Your task to perform on an android device: turn on airplane mode Image 0: 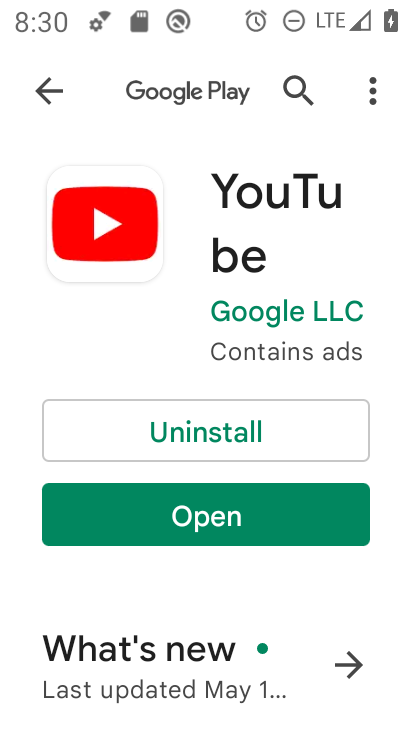
Step 0: press home button
Your task to perform on an android device: turn on airplane mode Image 1: 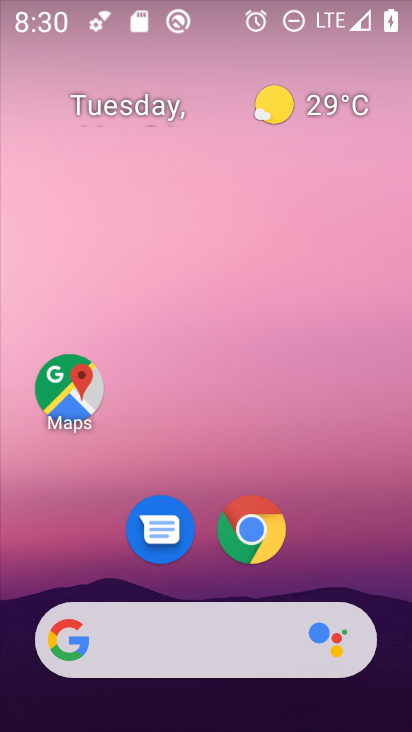
Step 1: drag from (311, 1) to (302, 204)
Your task to perform on an android device: turn on airplane mode Image 2: 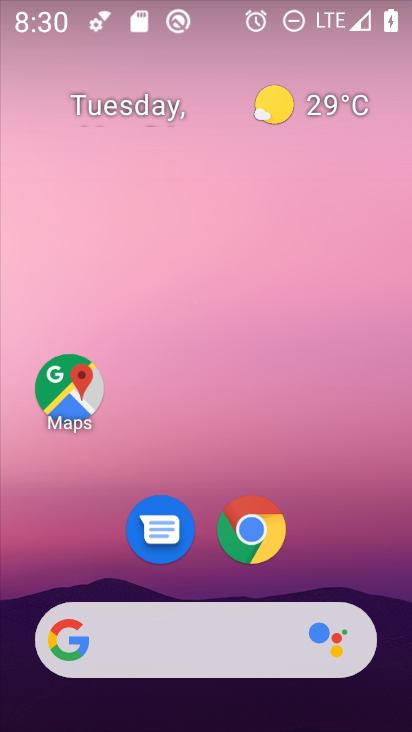
Step 2: drag from (232, 8) to (253, 517)
Your task to perform on an android device: turn on airplane mode Image 3: 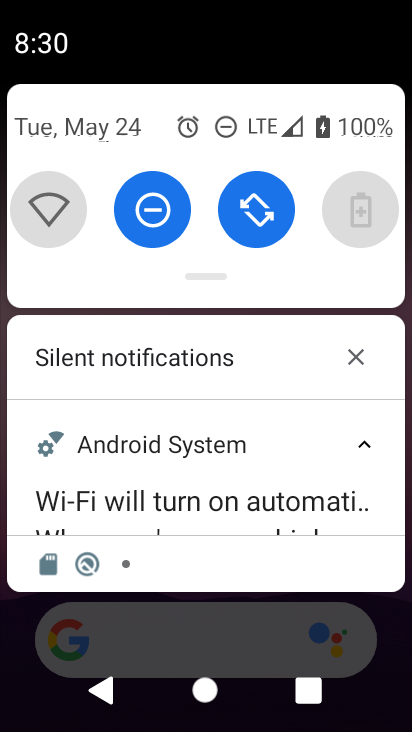
Step 3: drag from (346, 268) to (63, 272)
Your task to perform on an android device: turn on airplane mode Image 4: 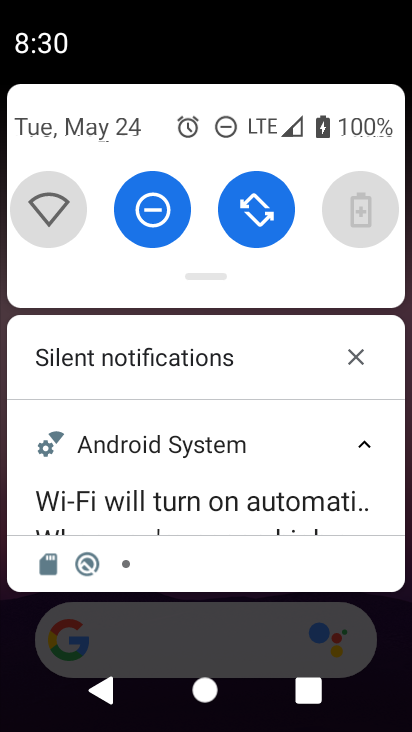
Step 4: drag from (215, 256) to (200, 604)
Your task to perform on an android device: turn on airplane mode Image 5: 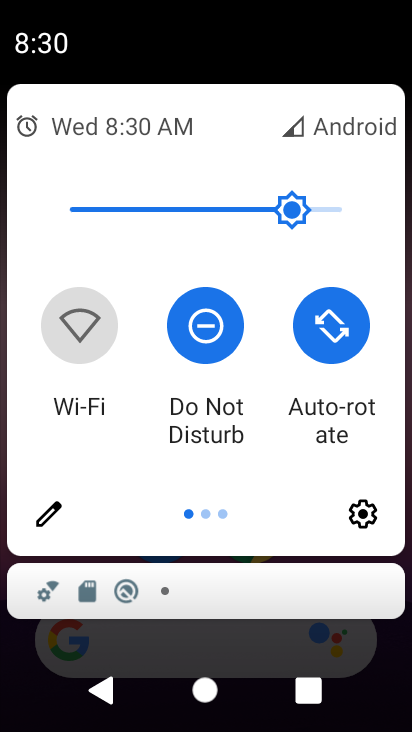
Step 5: drag from (349, 448) to (32, 446)
Your task to perform on an android device: turn on airplane mode Image 6: 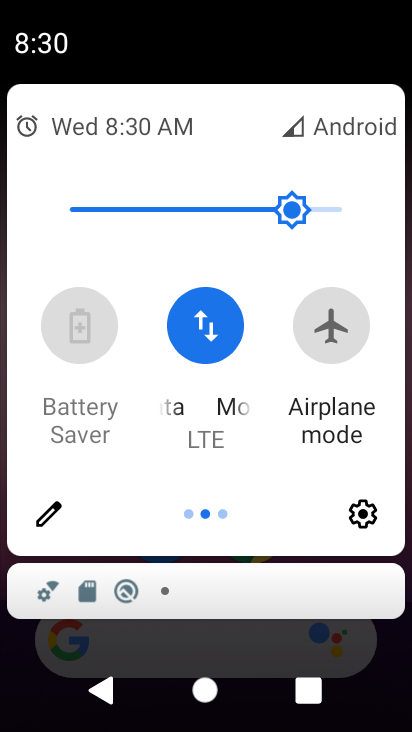
Step 6: click (330, 318)
Your task to perform on an android device: turn on airplane mode Image 7: 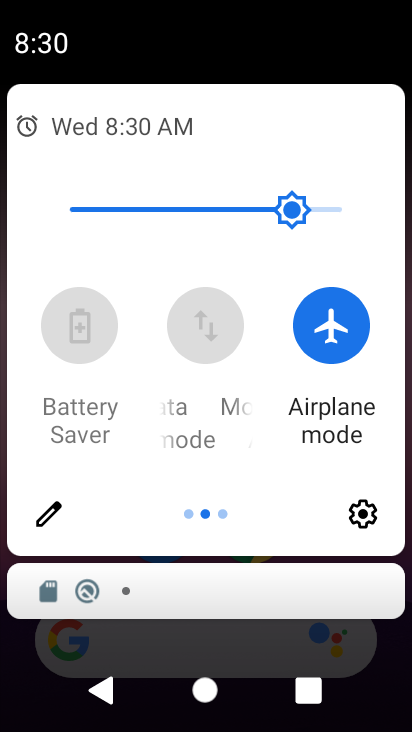
Step 7: task complete